Your task to perform on an android device: manage bookmarks in the chrome app Image 0: 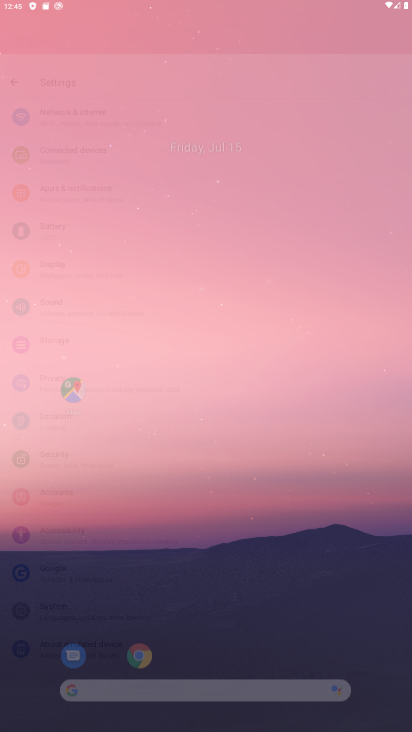
Step 0: drag from (310, 546) to (378, 0)
Your task to perform on an android device: manage bookmarks in the chrome app Image 1: 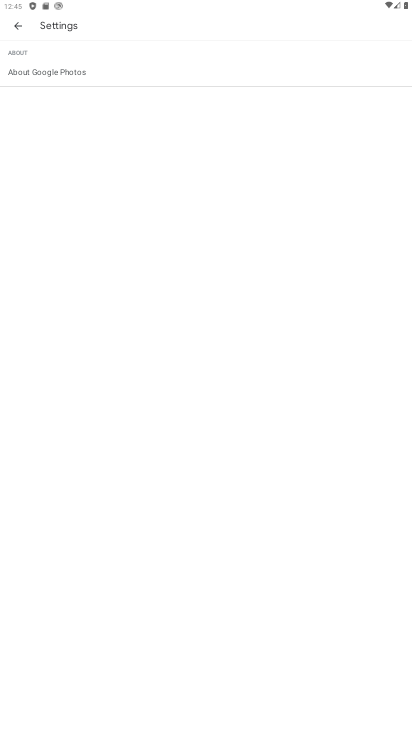
Step 1: press home button
Your task to perform on an android device: manage bookmarks in the chrome app Image 2: 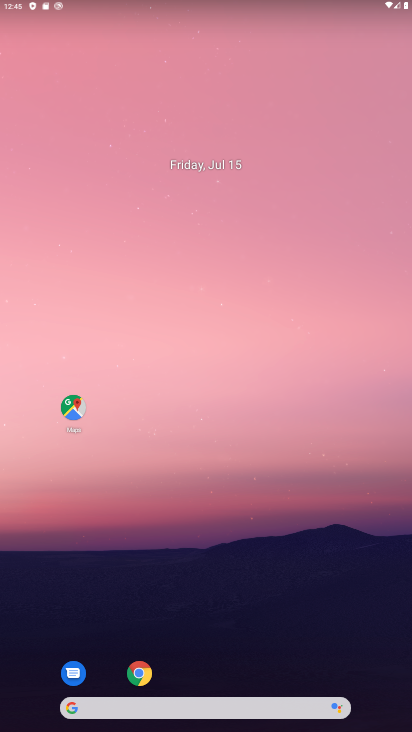
Step 2: drag from (231, 615) to (209, 67)
Your task to perform on an android device: manage bookmarks in the chrome app Image 3: 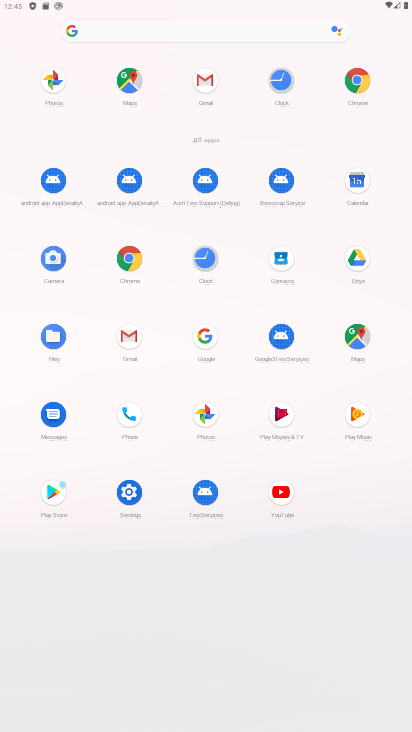
Step 3: click (361, 90)
Your task to perform on an android device: manage bookmarks in the chrome app Image 4: 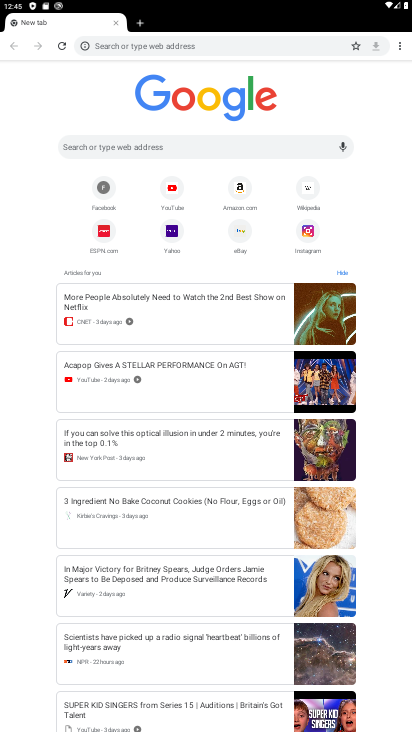
Step 4: drag from (399, 49) to (315, 97)
Your task to perform on an android device: manage bookmarks in the chrome app Image 5: 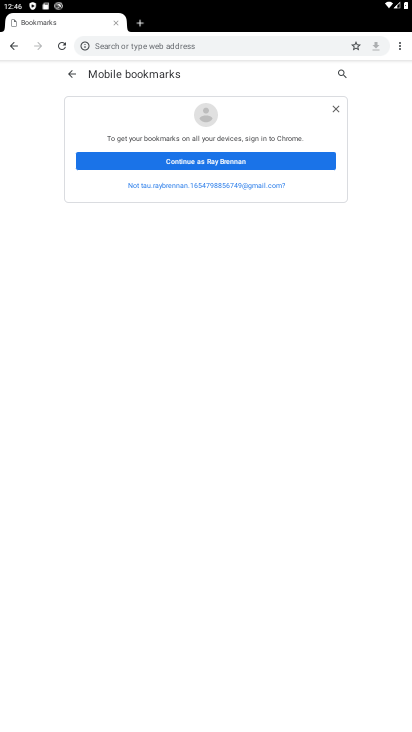
Step 5: click (210, 162)
Your task to perform on an android device: manage bookmarks in the chrome app Image 6: 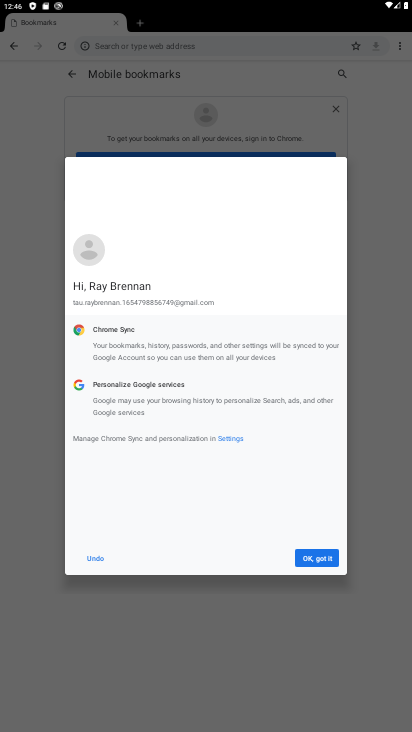
Step 6: click (318, 552)
Your task to perform on an android device: manage bookmarks in the chrome app Image 7: 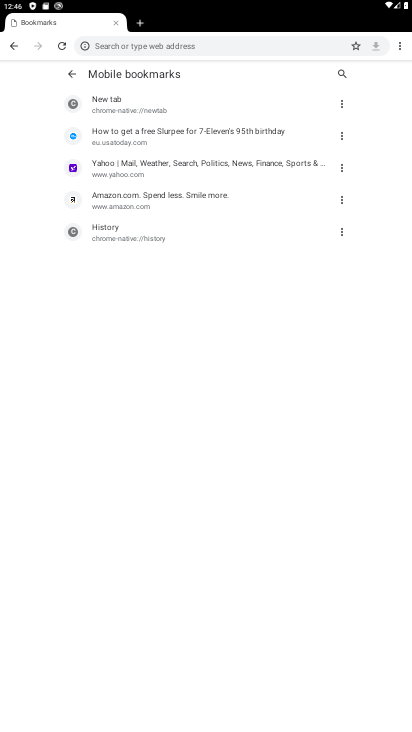
Step 7: click (340, 103)
Your task to perform on an android device: manage bookmarks in the chrome app Image 8: 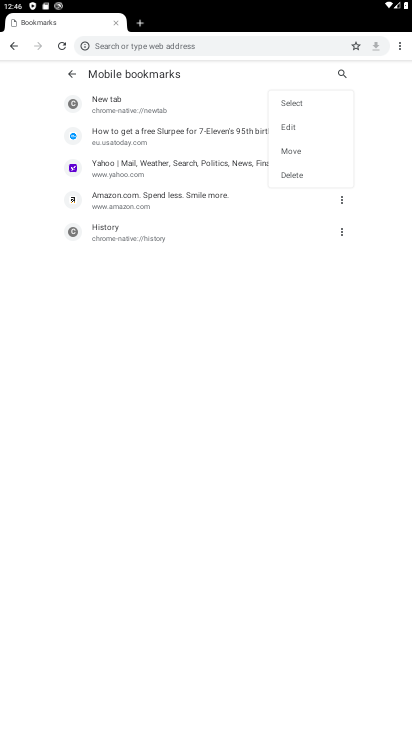
Step 8: click (291, 180)
Your task to perform on an android device: manage bookmarks in the chrome app Image 9: 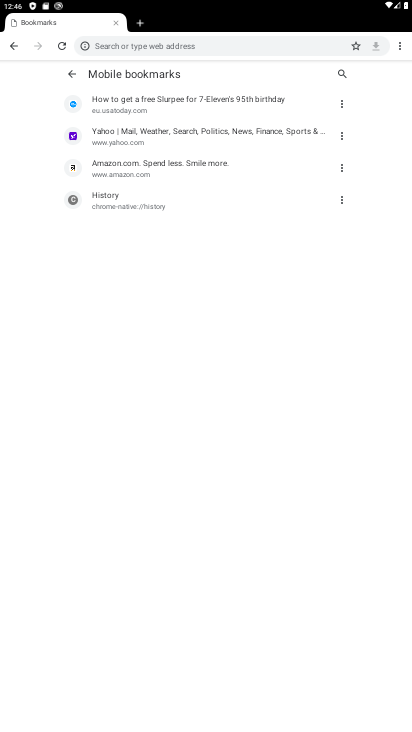
Step 9: task complete